Your task to perform on an android device: Open accessibility settings Image 0: 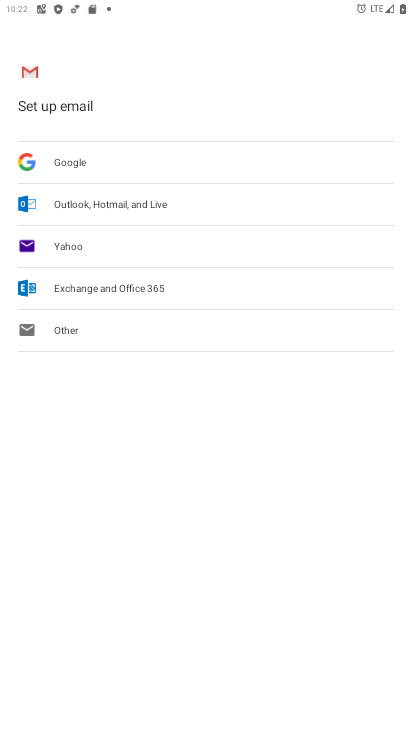
Step 0: press home button
Your task to perform on an android device: Open accessibility settings Image 1: 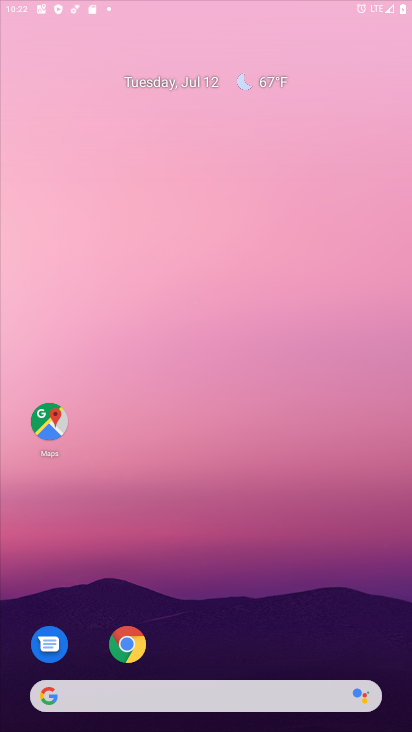
Step 1: drag from (213, 433) to (405, 188)
Your task to perform on an android device: Open accessibility settings Image 2: 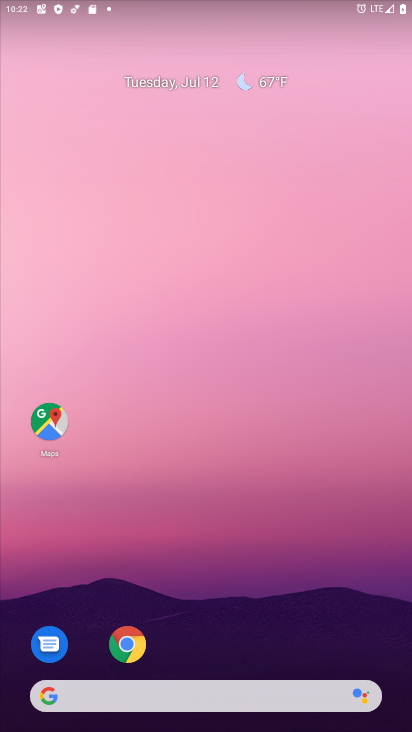
Step 2: drag from (207, 547) to (243, 181)
Your task to perform on an android device: Open accessibility settings Image 3: 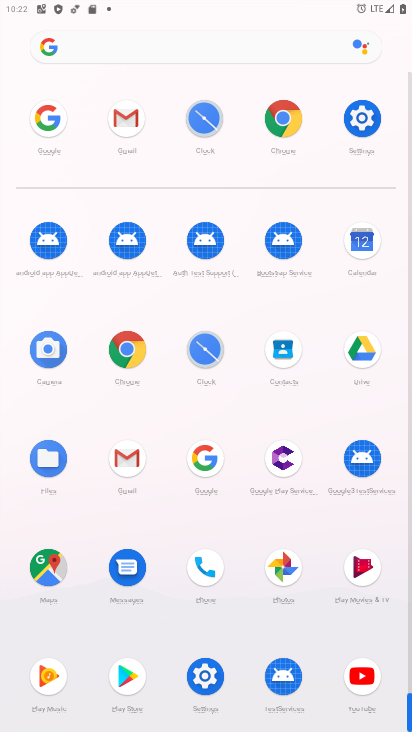
Step 3: click (352, 128)
Your task to perform on an android device: Open accessibility settings Image 4: 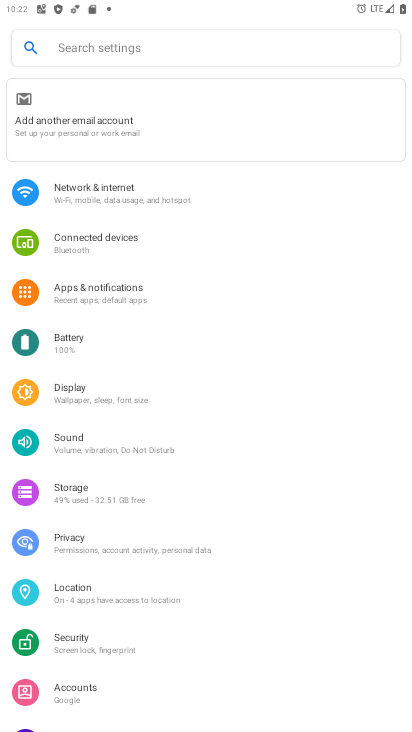
Step 4: drag from (203, 549) to (249, 297)
Your task to perform on an android device: Open accessibility settings Image 5: 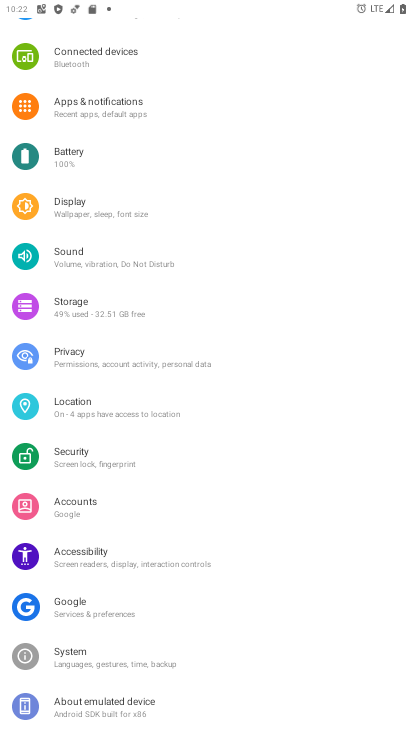
Step 5: click (76, 551)
Your task to perform on an android device: Open accessibility settings Image 6: 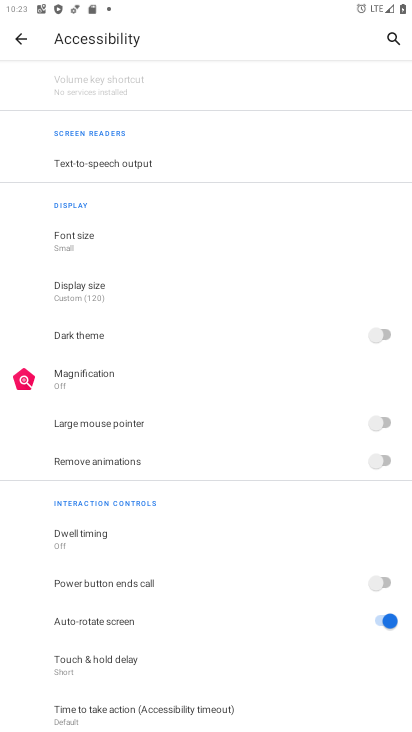
Step 6: task complete